Your task to perform on an android device: clear history in the chrome app Image 0: 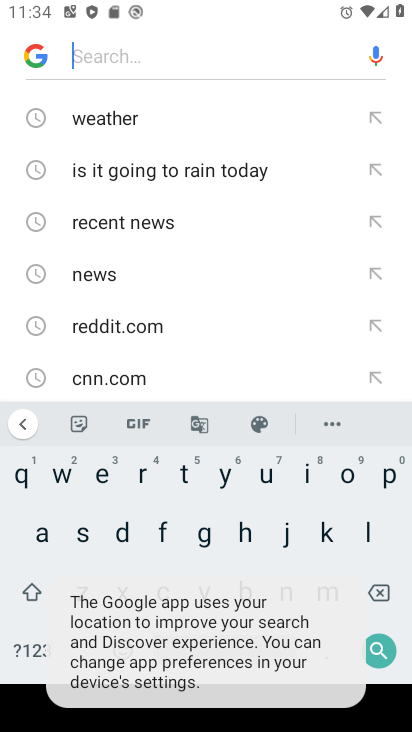
Step 0: press home button
Your task to perform on an android device: clear history in the chrome app Image 1: 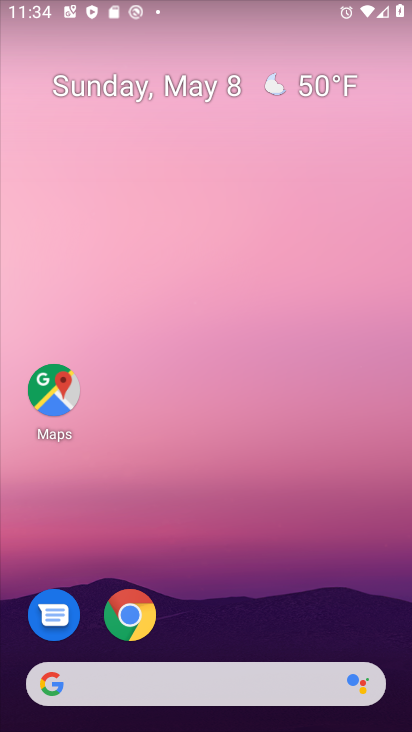
Step 1: drag from (205, 721) to (278, 327)
Your task to perform on an android device: clear history in the chrome app Image 2: 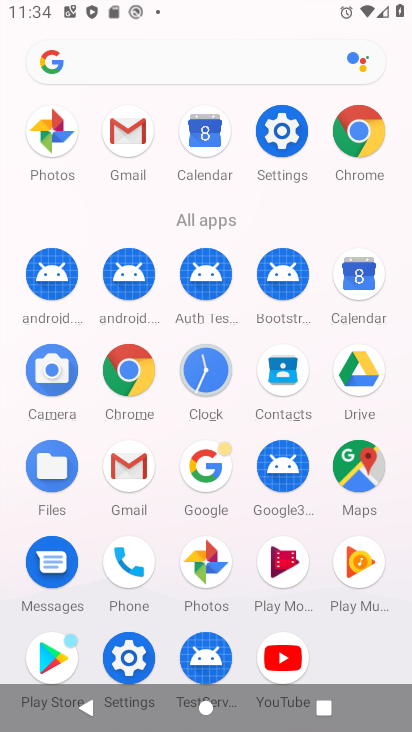
Step 2: click (378, 135)
Your task to perform on an android device: clear history in the chrome app Image 3: 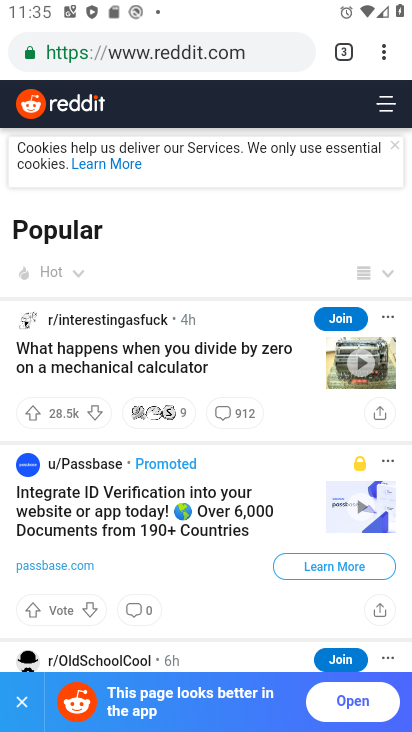
Step 3: click (390, 66)
Your task to perform on an android device: clear history in the chrome app Image 4: 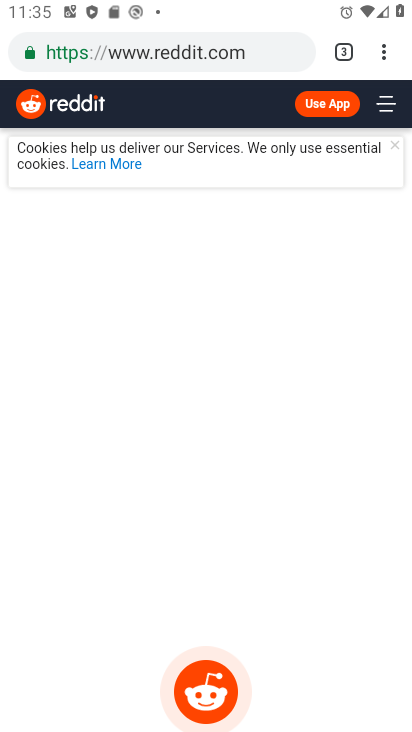
Step 4: click (375, 63)
Your task to perform on an android device: clear history in the chrome app Image 5: 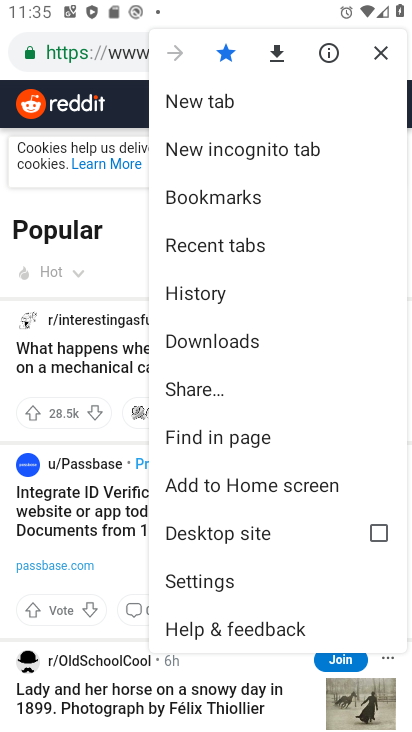
Step 5: click (215, 298)
Your task to perform on an android device: clear history in the chrome app Image 6: 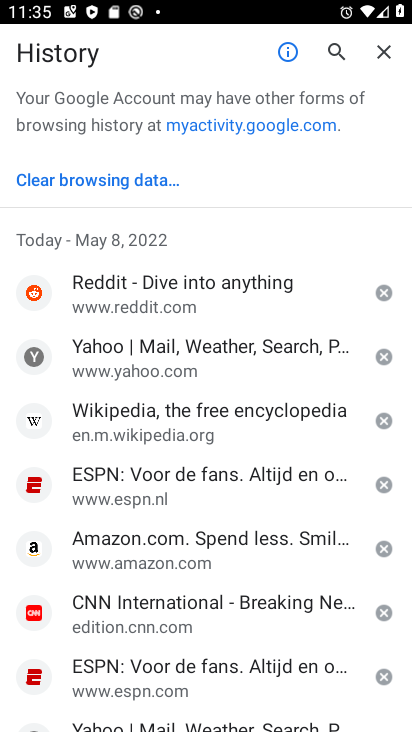
Step 6: click (79, 177)
Your task to perform on an android device: clear history in the chrome app Image 7: 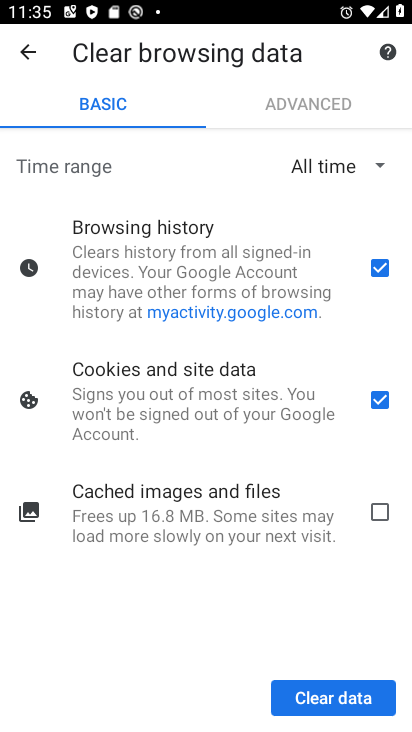
Step 7: click (390, 402)
Your task to perform on an android device: clear history in the chrome app Image 8: 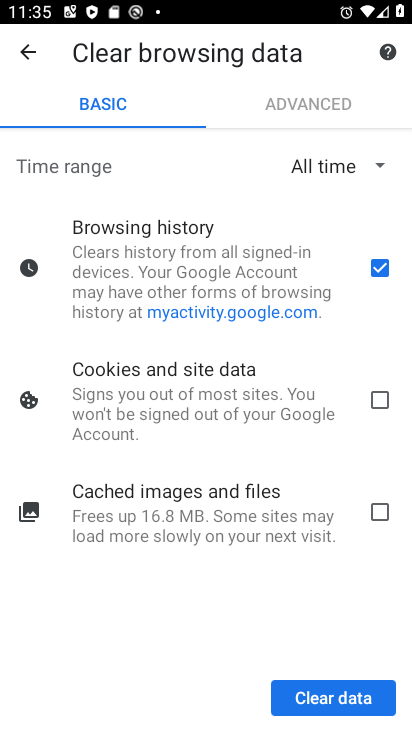
Step 8: click (304, 699)
Your task to perform on an android device: clear history in the chrome app Image 9: 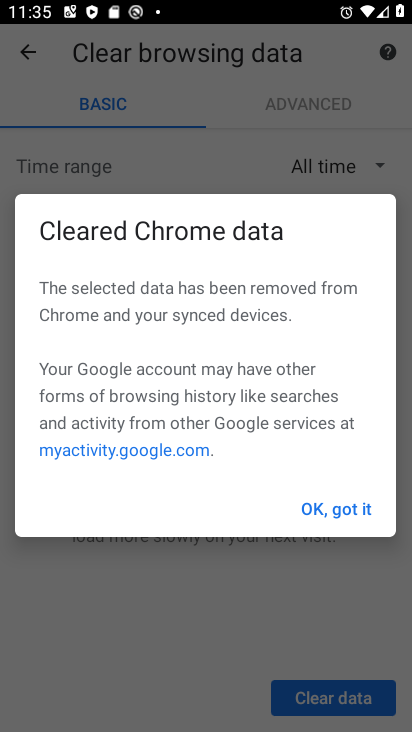
Step 9: task complete